Your task to perform on an android device: toggle translation in the chrome app Image 0: 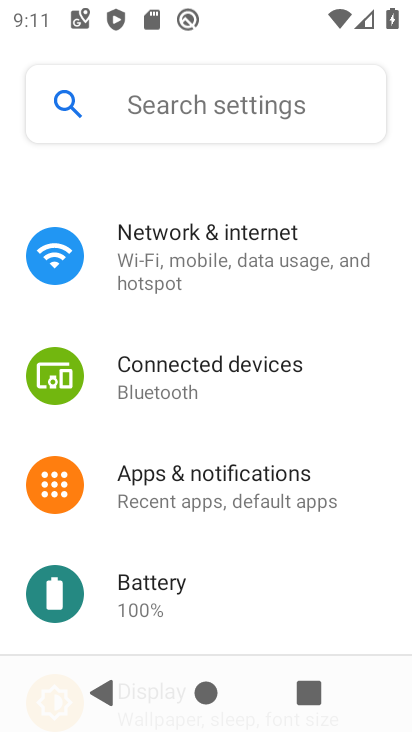
Step 0: press home button
Your task to perform on an android device: toggle translation in the chrome app Image 1: 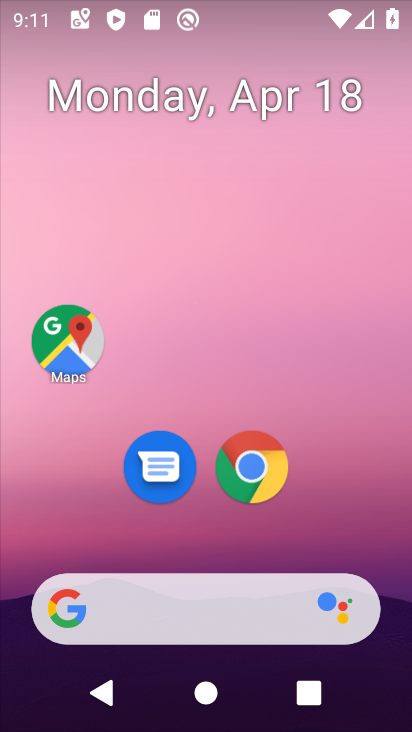
Step 1: drag from (359, 528) to (347, 23)
Your task to perform on an android device: toggle translation in the chrome app Image 2: 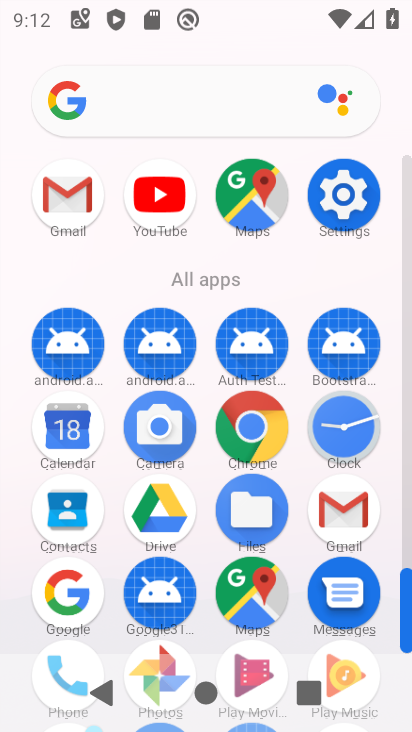
Step 2: click (261, 448)
Your task to perform on an android device: toggle translation in the chrome app Image 3: 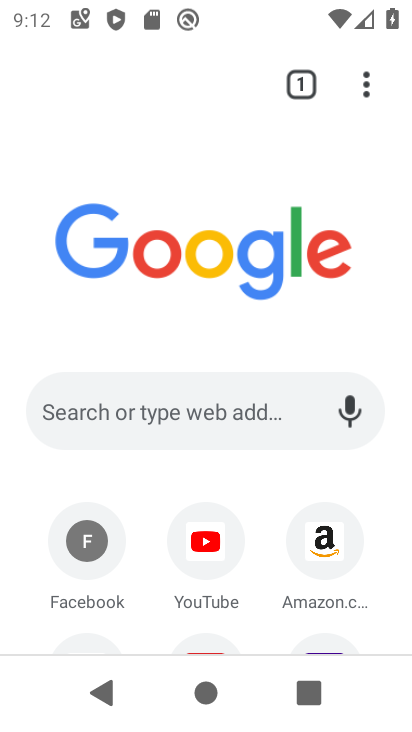
Step 3: click (367, 78)
Your task to perform on an android device: toggle translation in the chrome app Image 4: 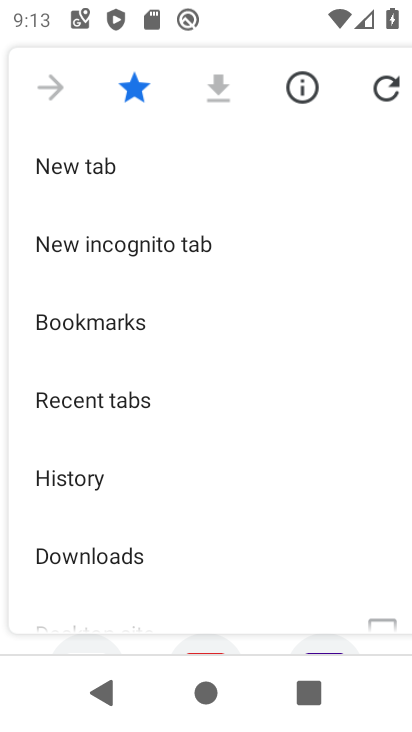
Step 4: drag from (204, 553) to (232, 167)
Your task to perform on an android device: toggle translation in the chrome app Image 5: 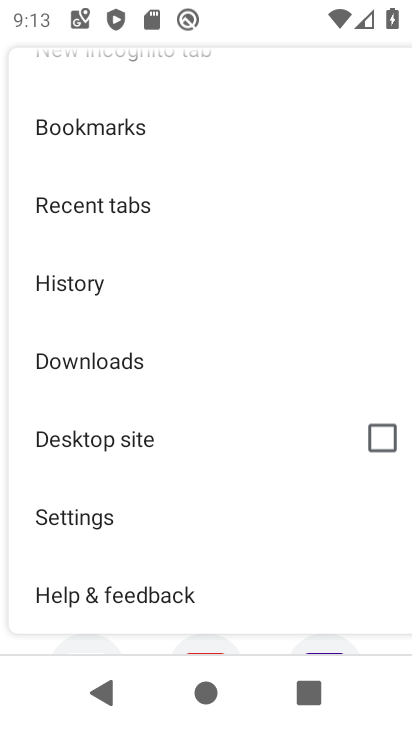
Step 5: click (126, 512)
Your task to perform on an android device: toggle translation in the chrome app Image 6: 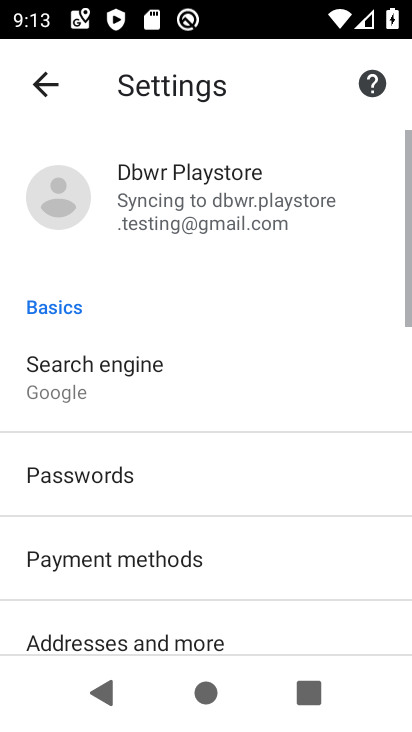
Step 6: drag from (207, 595) to (261, 107)
Your task to perform on an android device: toggle translation in the chrome app Image 7: 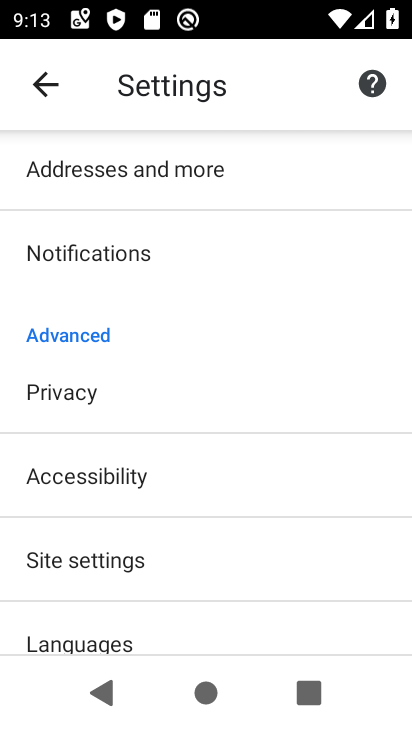
Step 7: drag from (190, 577) to (235, 194)
Your task to perform on an android device: toggle translation in the chrome app Image 8: 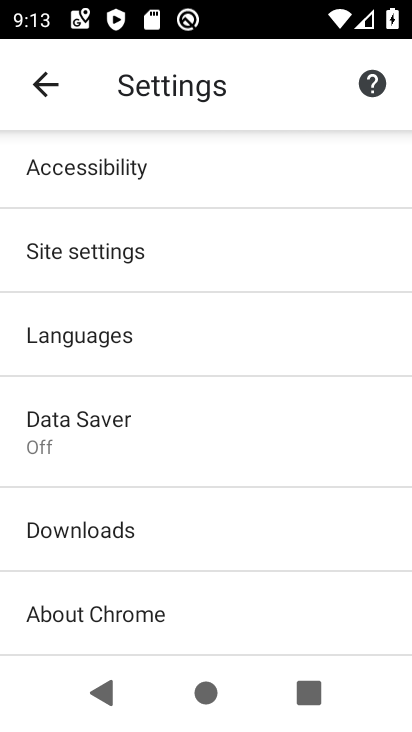
Step 8: click (108, 340)
Your task to perform on an android device: toggle translation in the chrome app Image 9: 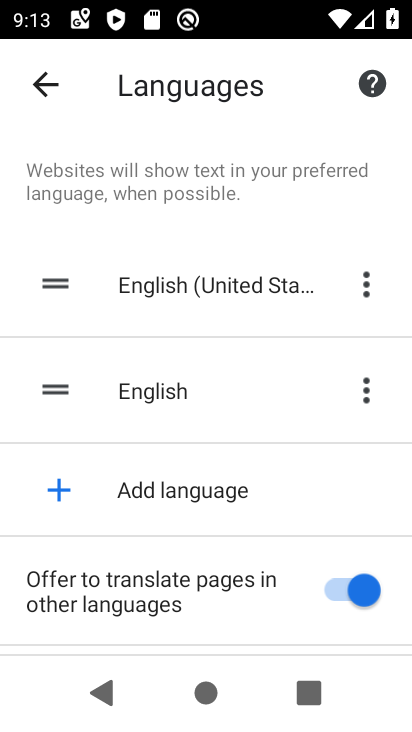
Step 9: click (218, 608)
Your task to perform on an android device: toggle translation in the chrome app Image 10: 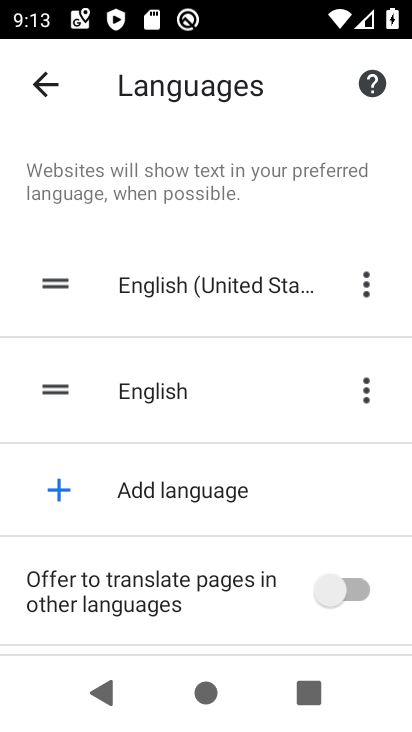
Step 10: task complete